Your task to perform on an android device: What is the recent news? Image 0: 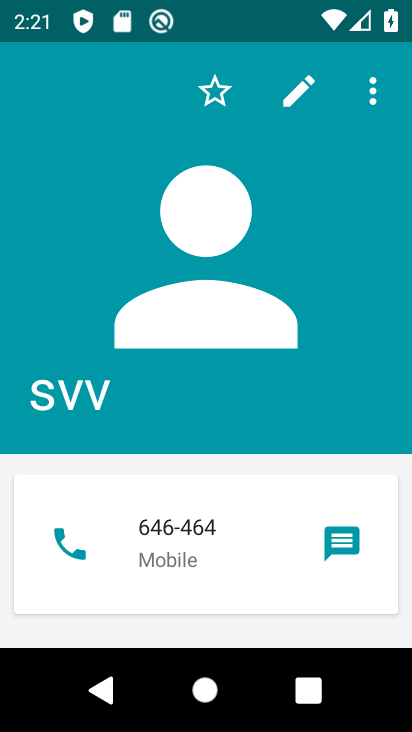
Step 0: press back button
Your task to perform on an android device: What is the recent news? Image 1: 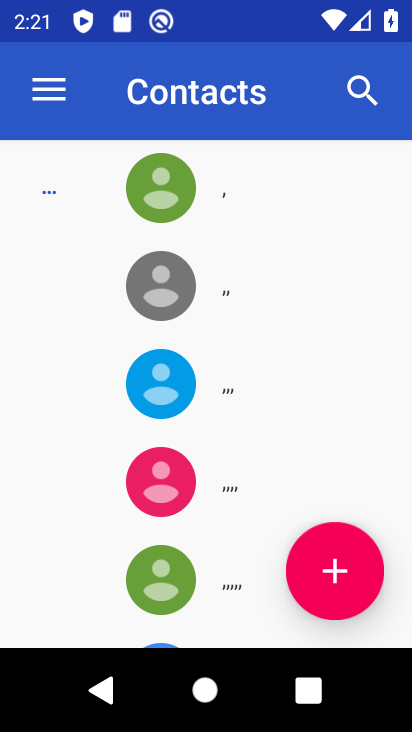
Step 1: press back button
Your task to perform on an android device: What is the recent news? Image 2: 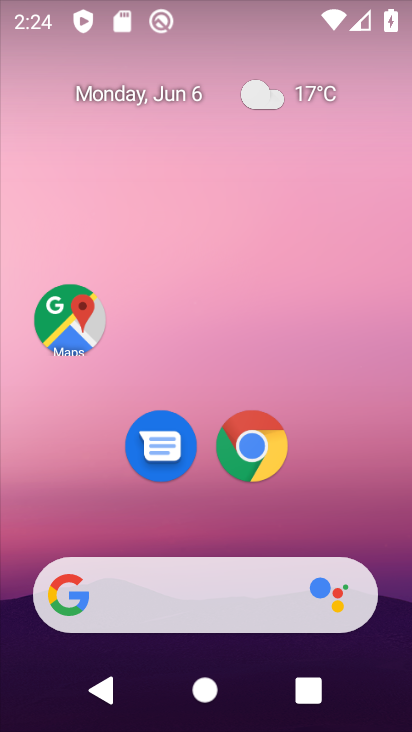
Step 2: click (174, 591)
Your task to perform on an android device: What is the recent news? Image 3: 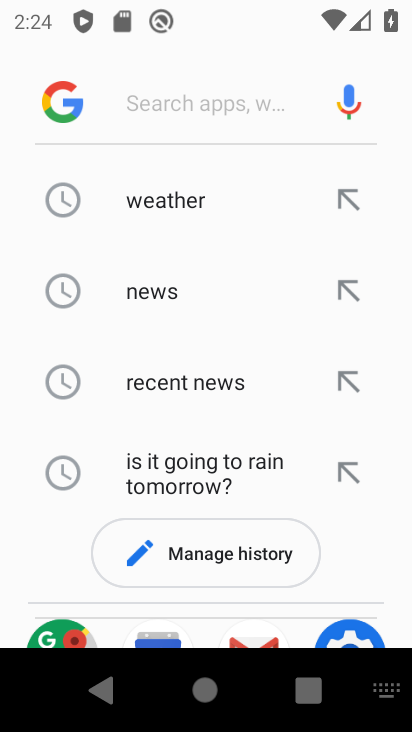
Step 3: click (199, 390)
Your task to perform on an android device: What is the recent news? Image 4: 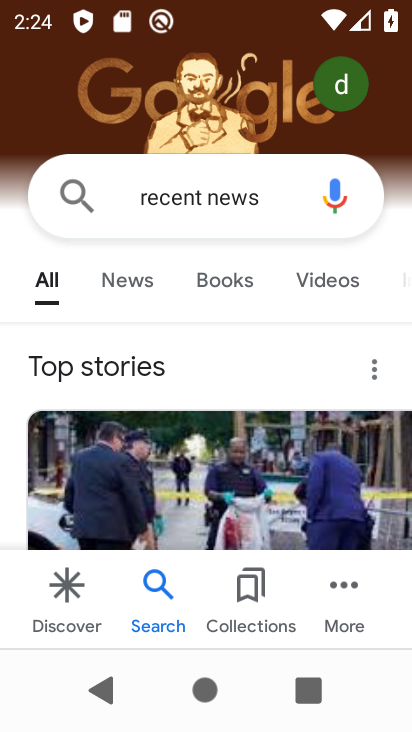
Step 4: task complete